Your task to perform on an android device: Open the map Image 0: 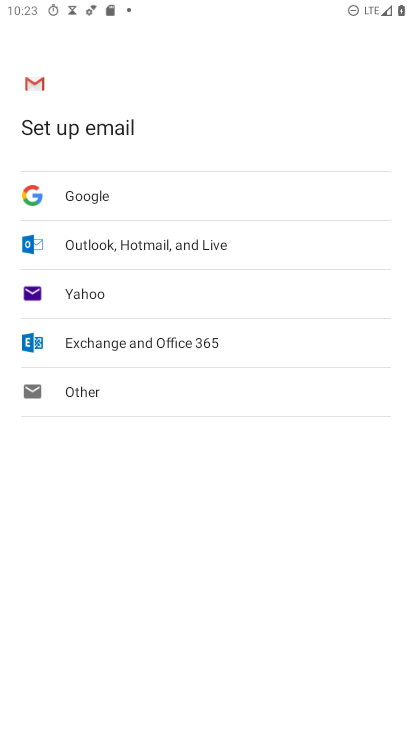
Step 0: press home button
Your task to perform on an android device: Open the map Image 1: 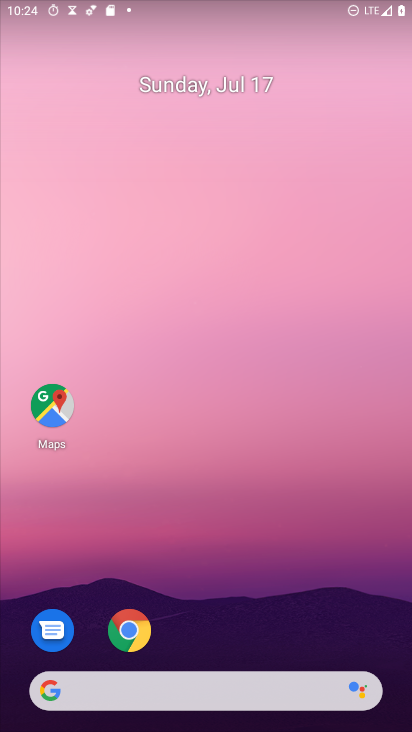
Step 1: drag from (149, 686) to (229, 104)
Your task to perform on an android device: Open the map Image 2: 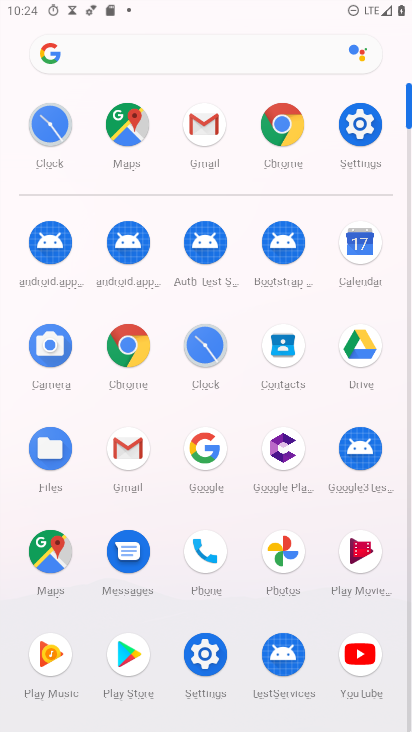
Step 2: click (68, 549)
Your task to perform on an android device: Open the map Image 3: 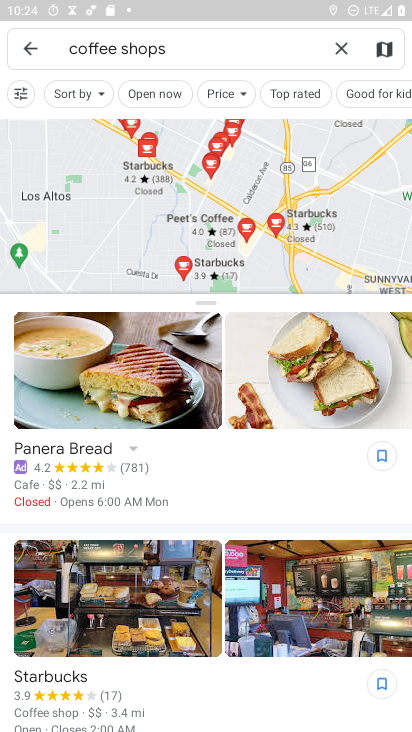
Step 3: task complete